Your task to perform on an android device: toggle wifi Image 0: 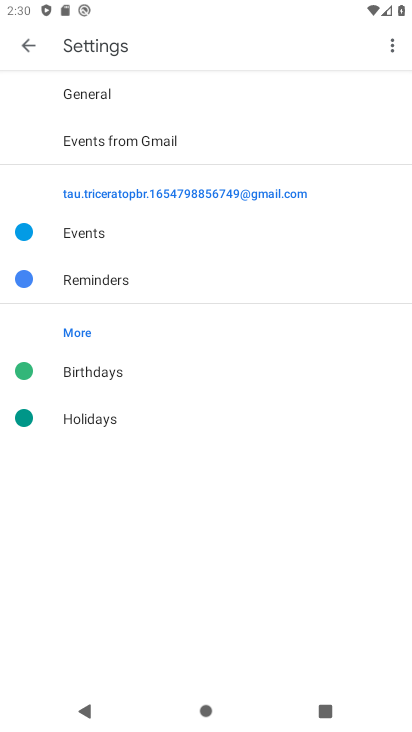
Step 0: press back button
Your task to perform on an android device: toggle wifi Image 1: 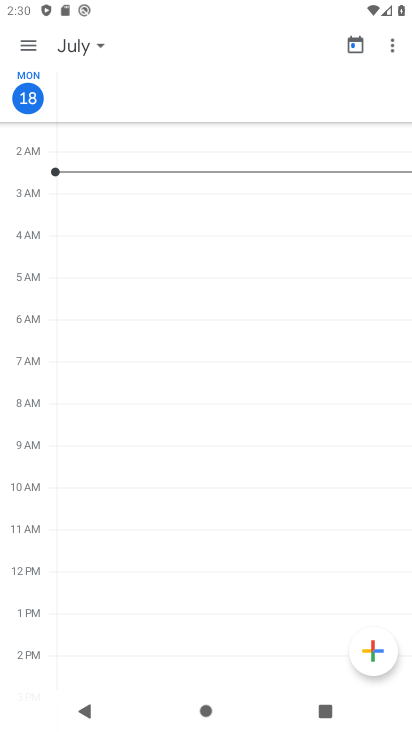
Step 1: press back button
Your task to perform on an android device: toggle wifi Image 2: 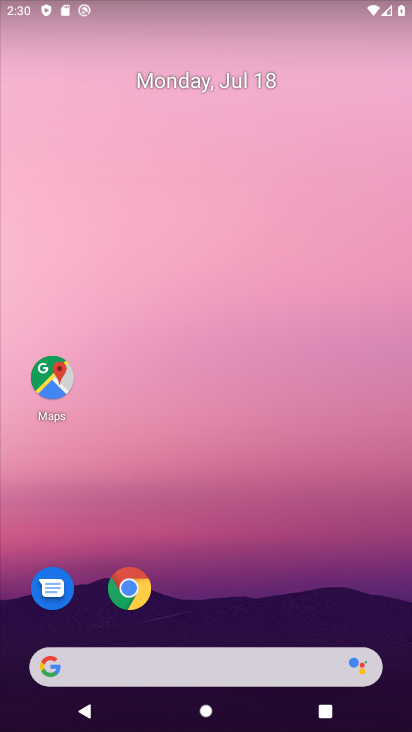
Step 2: drag from (49, 5) to (171, 658)
Your task to perform on an android device: toggle wifi Image 3: 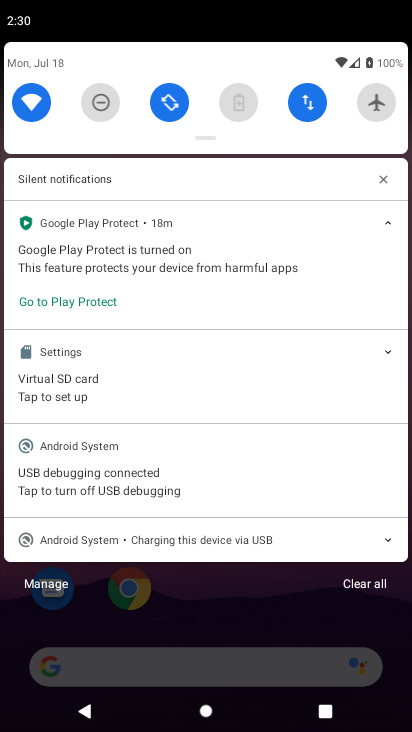
Step 3: click (28, 95)
Your task to perform on an android device: toggle wifi Image 4: 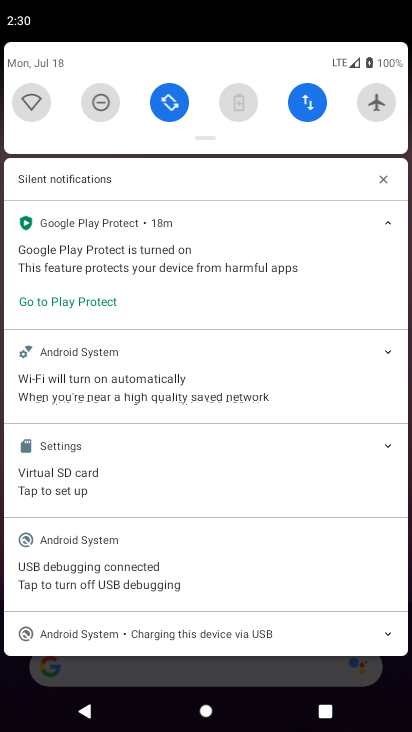
Step 4: task complete